Your task to perform on an android device: open app "Messenger Lite" Image 0: 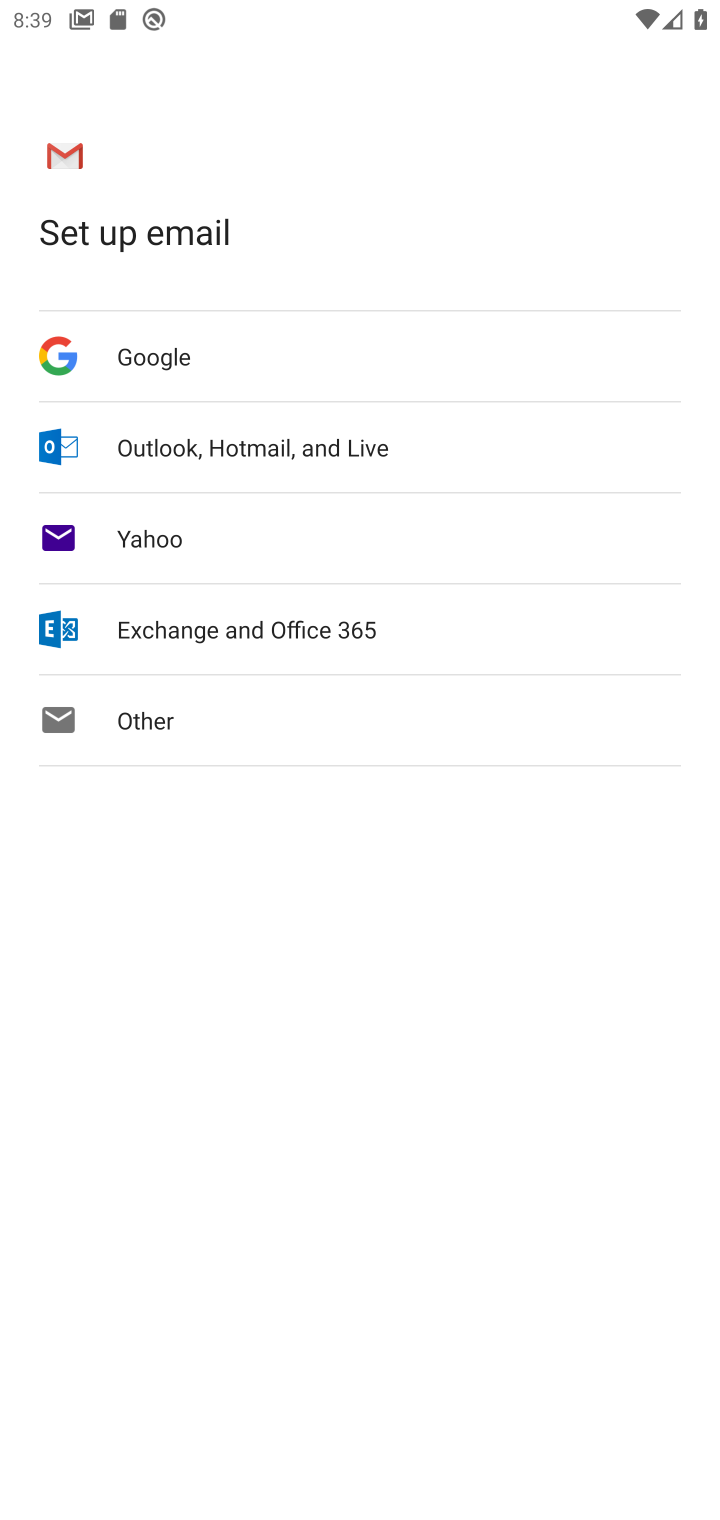
Step 0: press home button
Your task to perform on an android device: open app "Messenger Lite" Image 1: 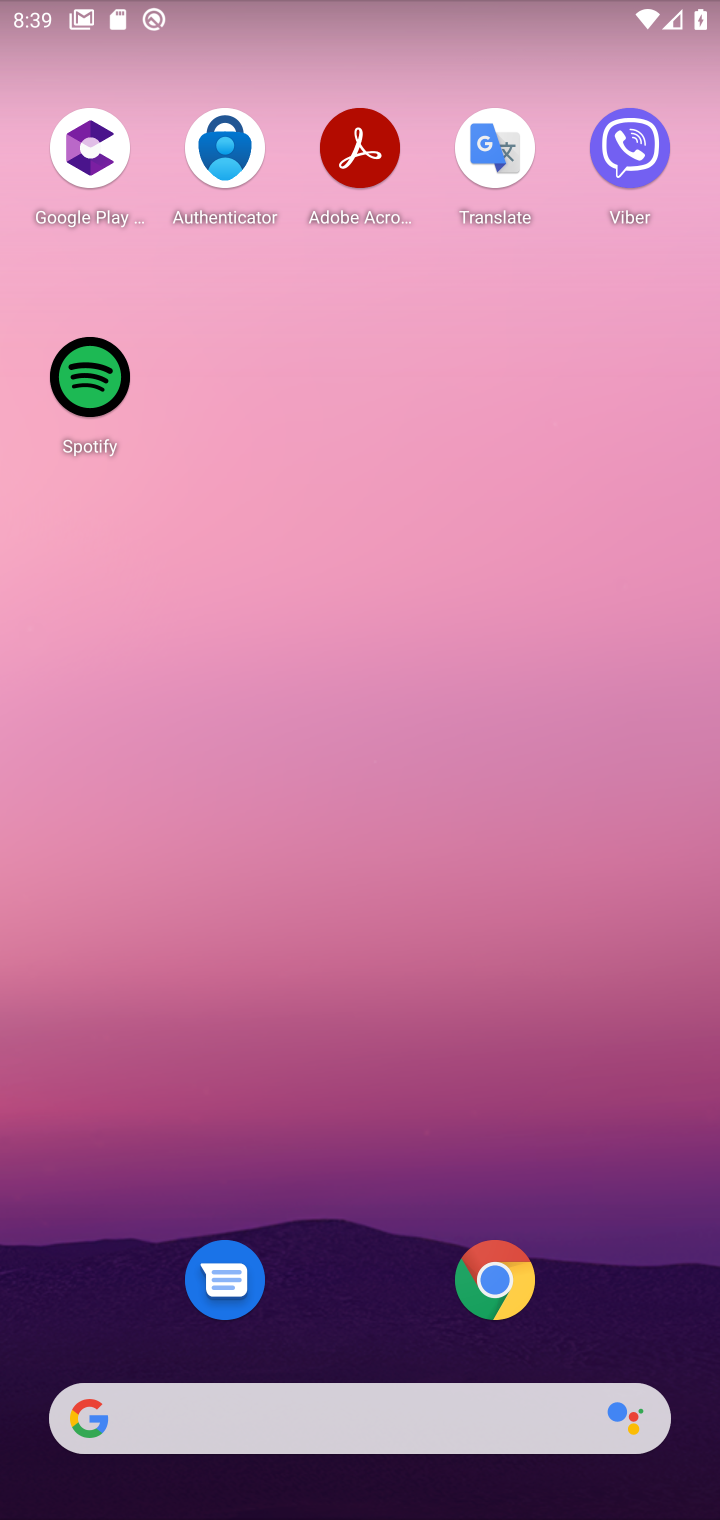
Step 1: drag from (445, 1324) to (457, 682)
Your task to perform on an android device: open app "Messenger Lite" Image 2: 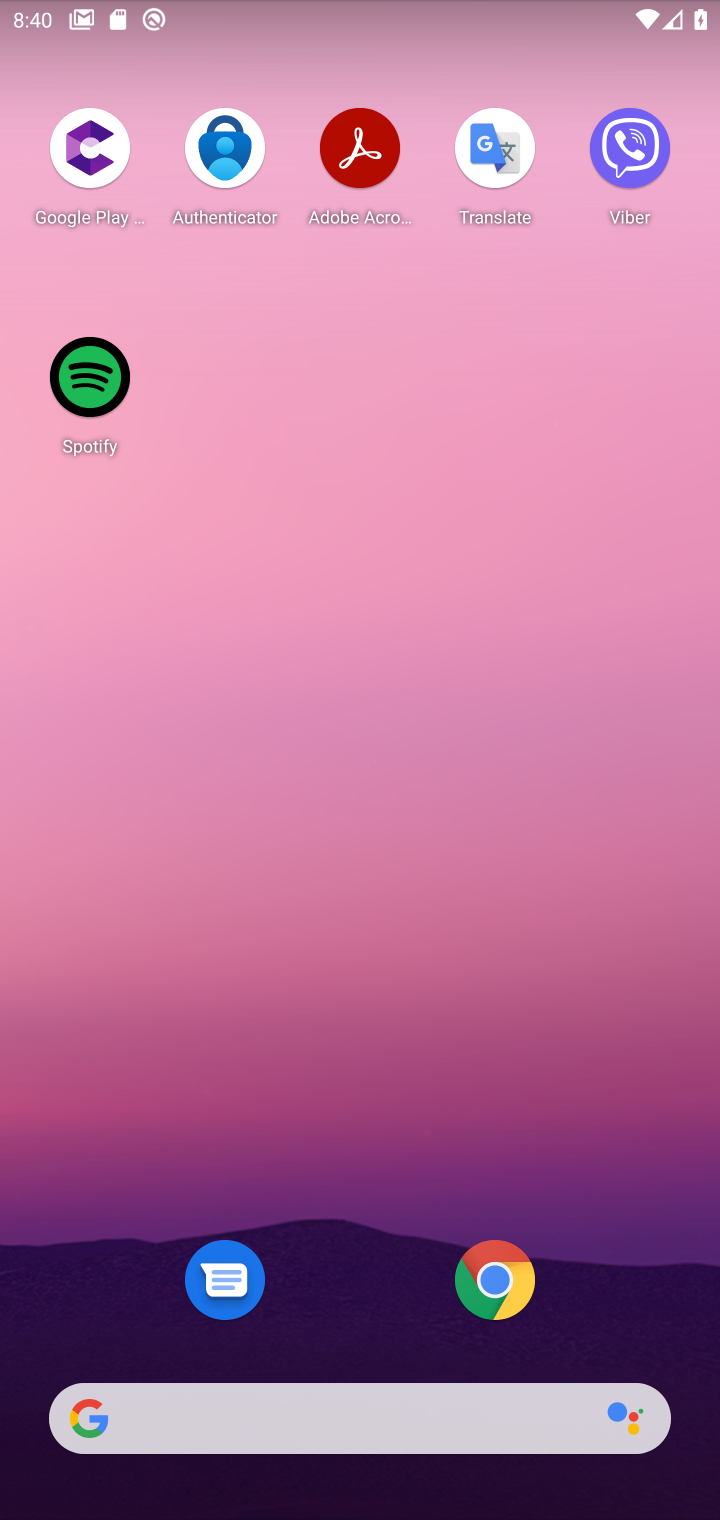
Step 2: drag from (60, 793) to (709, 748)
Your task to perform on an android device: open app "Messenger Lite" Image 3: 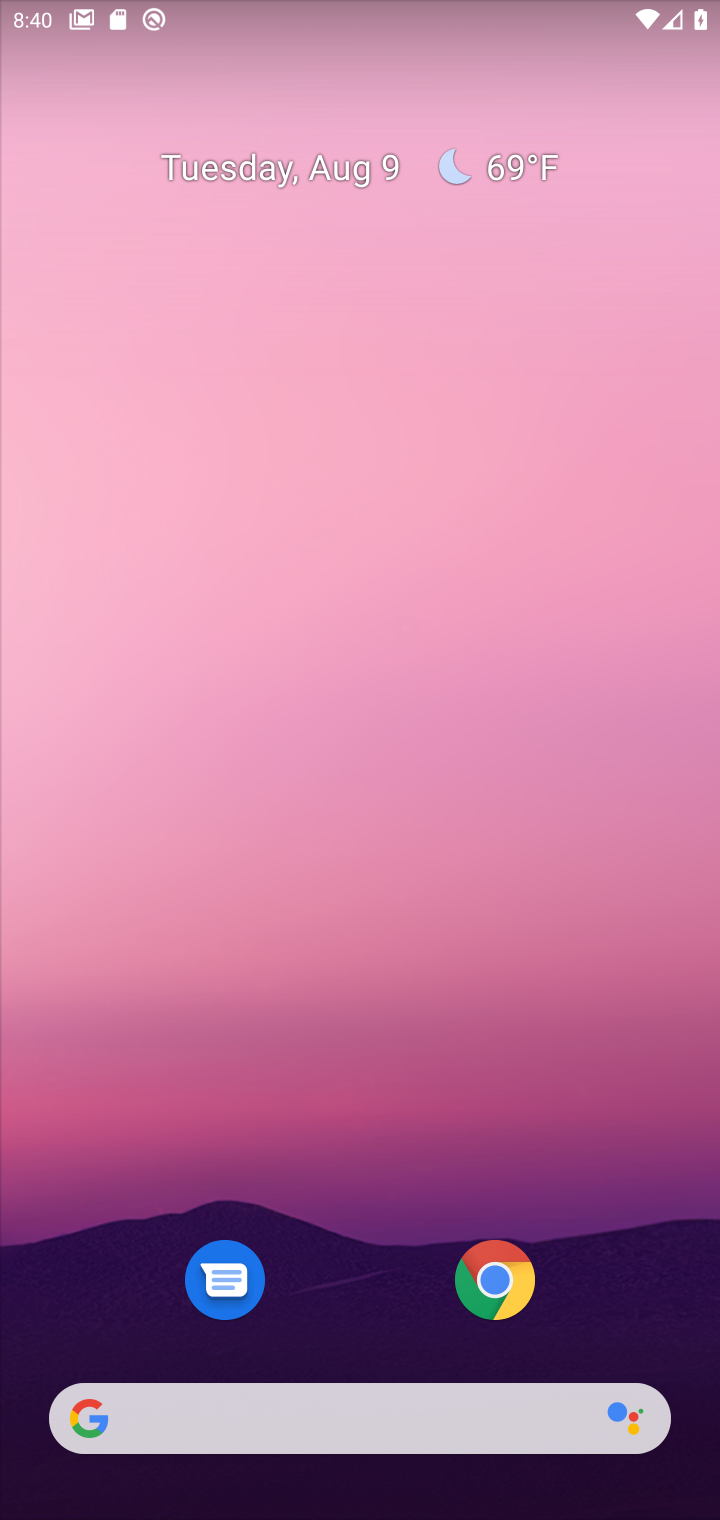
Step 3: click (513, 476)
Your task to perform on an android device: open app "Messenger Lite" Image 4: 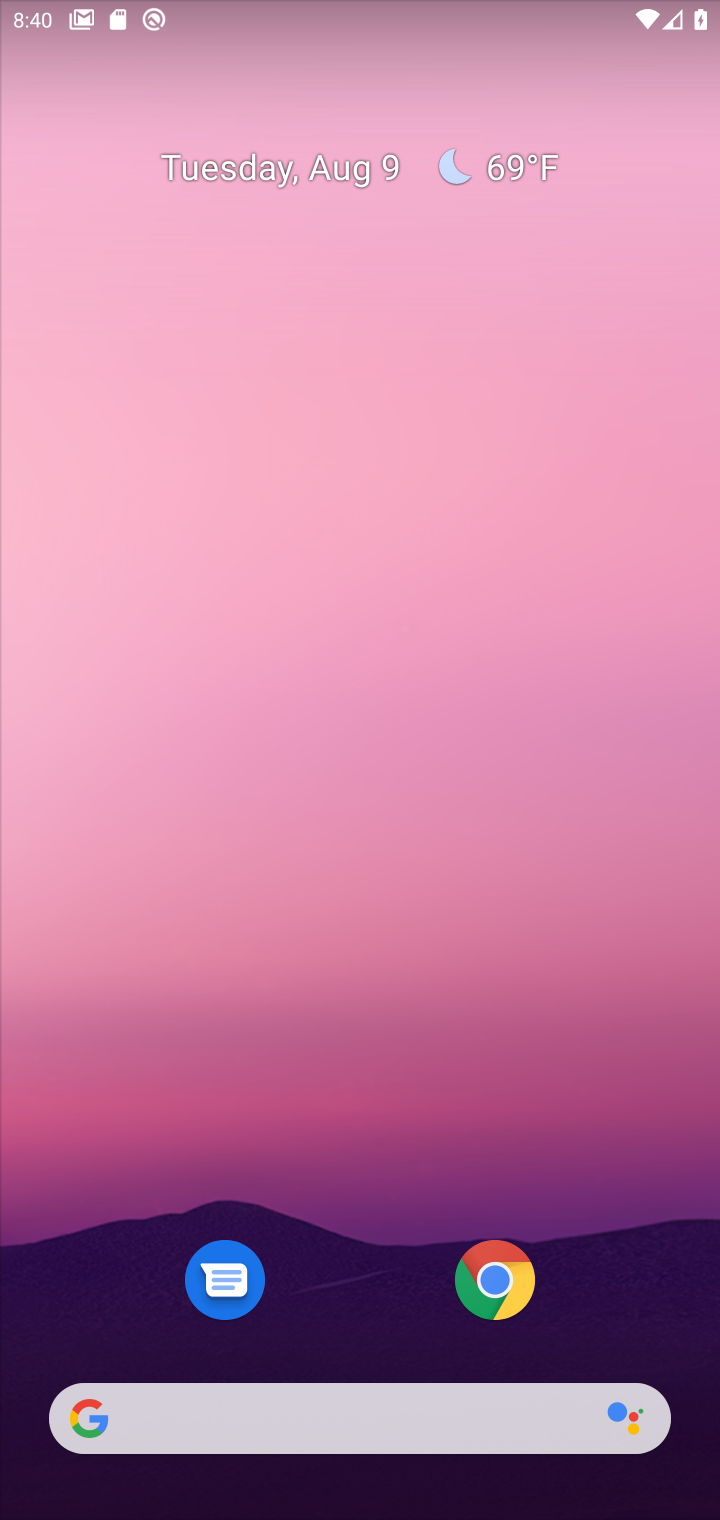
Step 4: drag from (443, 952) to (454, 739)
Your task to perform on an android device: open app "Messenger Lite" Image 5: 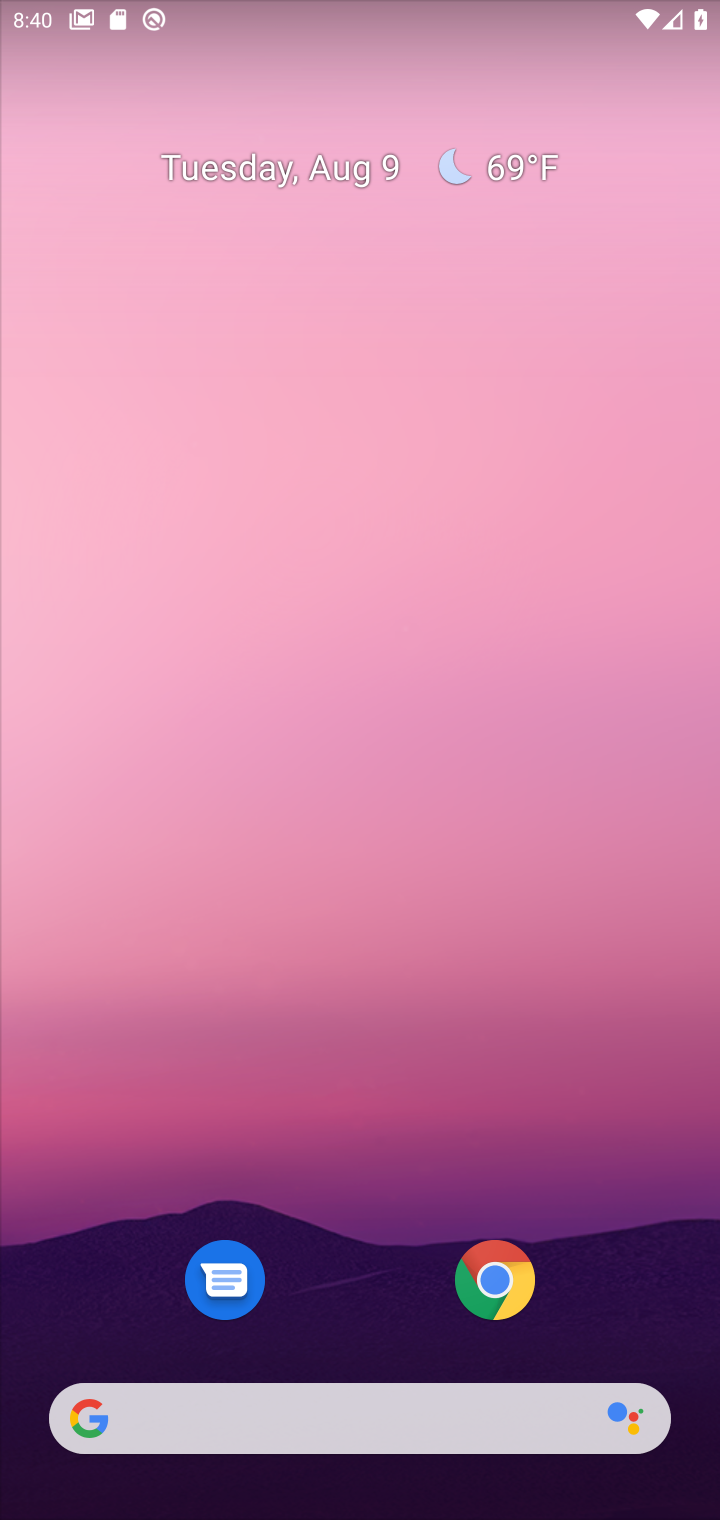
Step 5: drag from (352, 1296) to (416, 234)
Your task to perform on an android device: open app "Messenger Lite" Image 6: 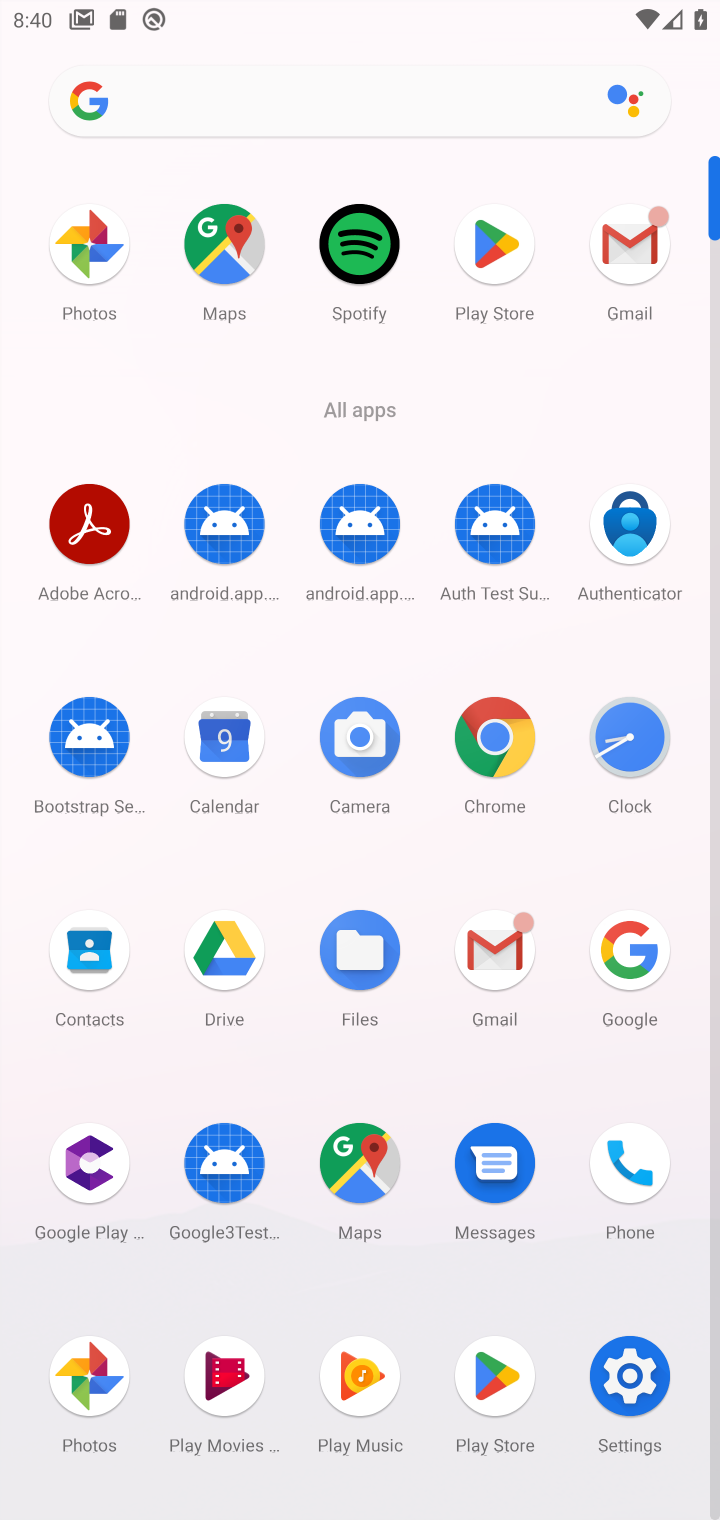
Step 6: click (496, 1390)
Your task to perform on an android device: open app "Messenger Lite" Image 7: 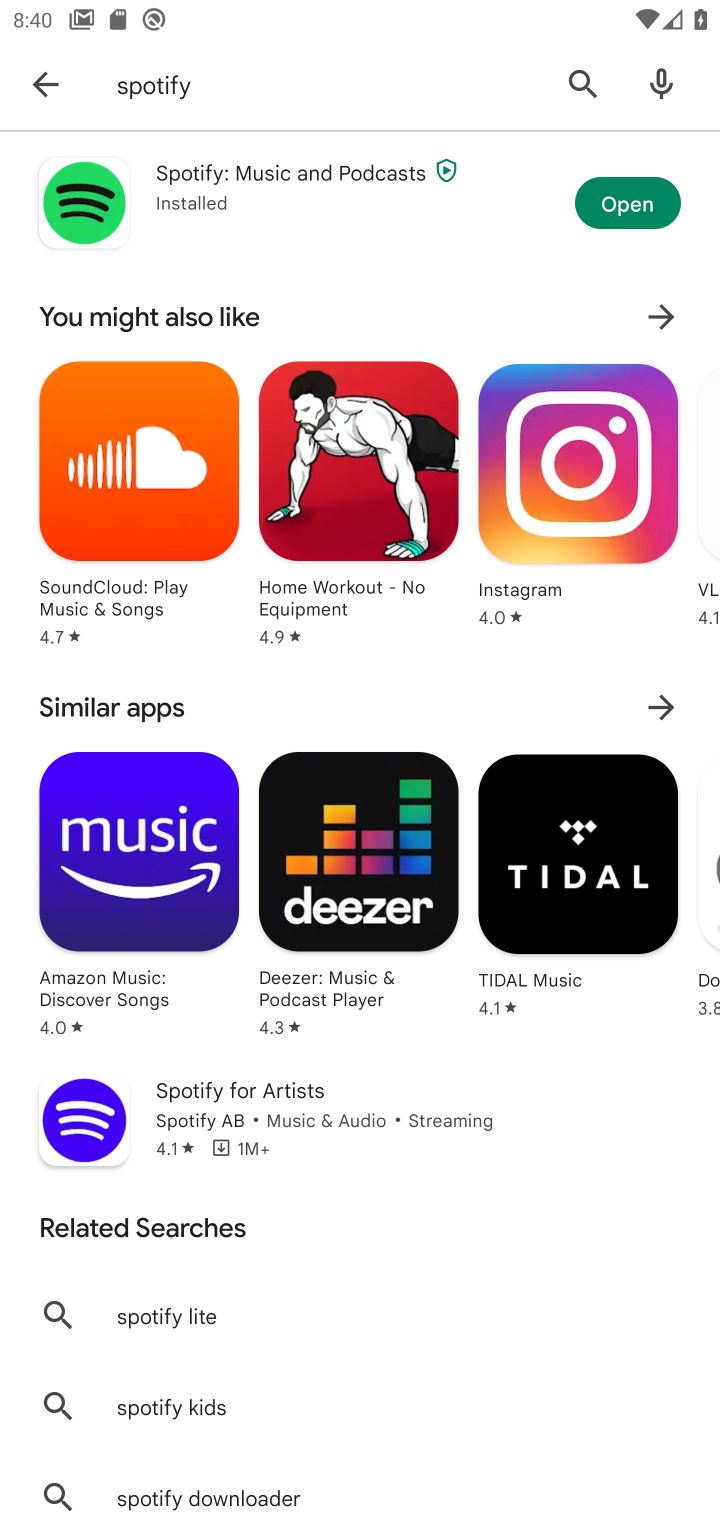
Step 7: click (576, 77)
Your task to perform on an android device: open app "Messenger Lite" Image 8: 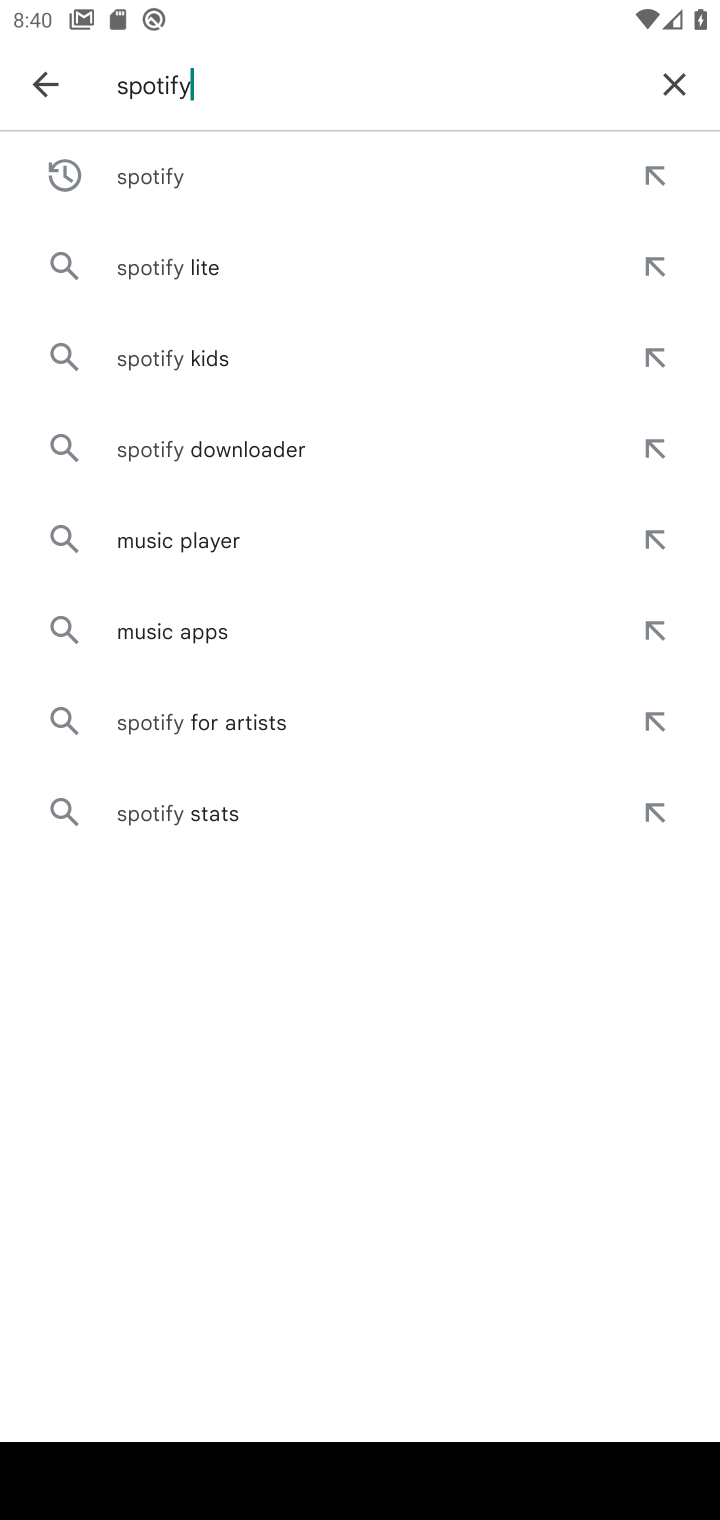
Step 8: click (677, 85)
Your task to perform on an android device: open app "Messenger Lite" Image 9: 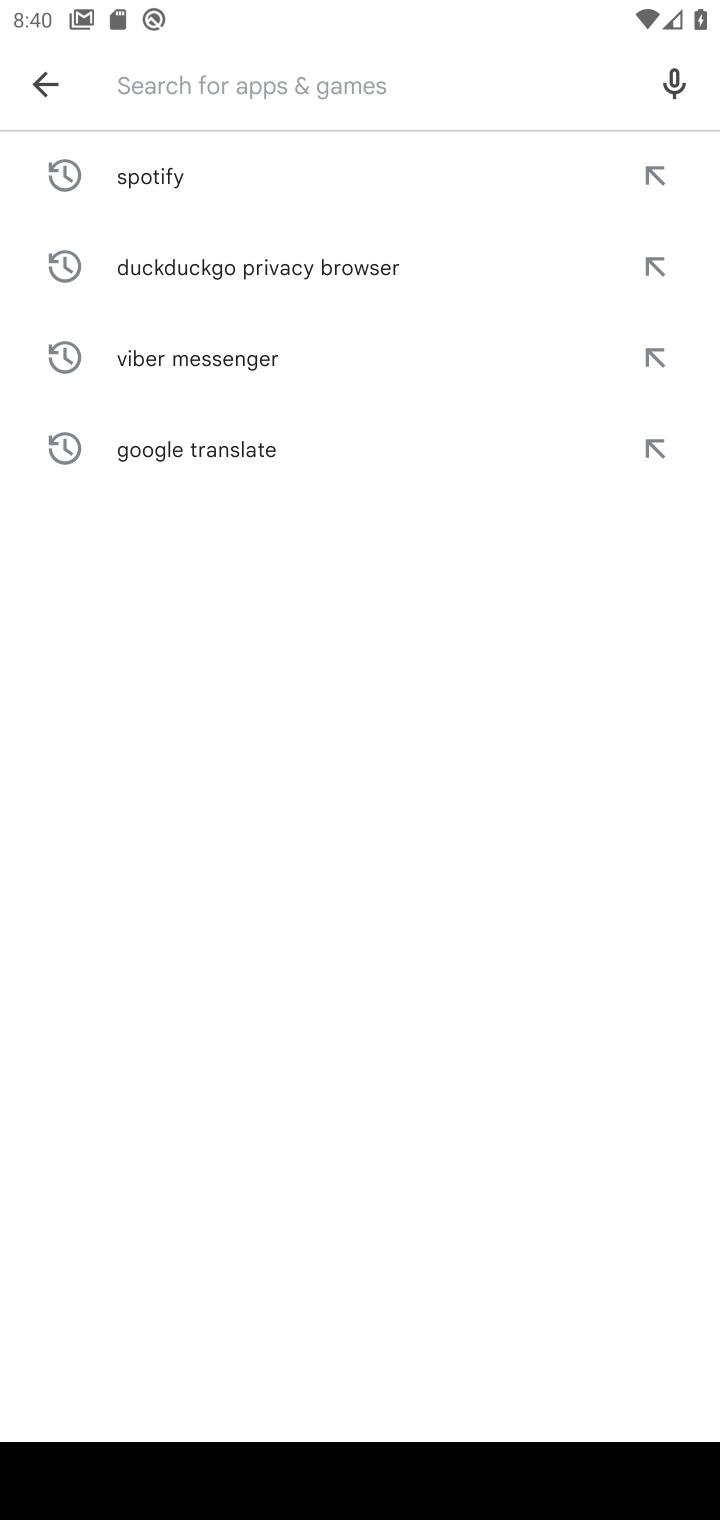
Step 9: type "messenger lite"
Your task to perform on an android device: open app "Messenger Lite" Image 10: 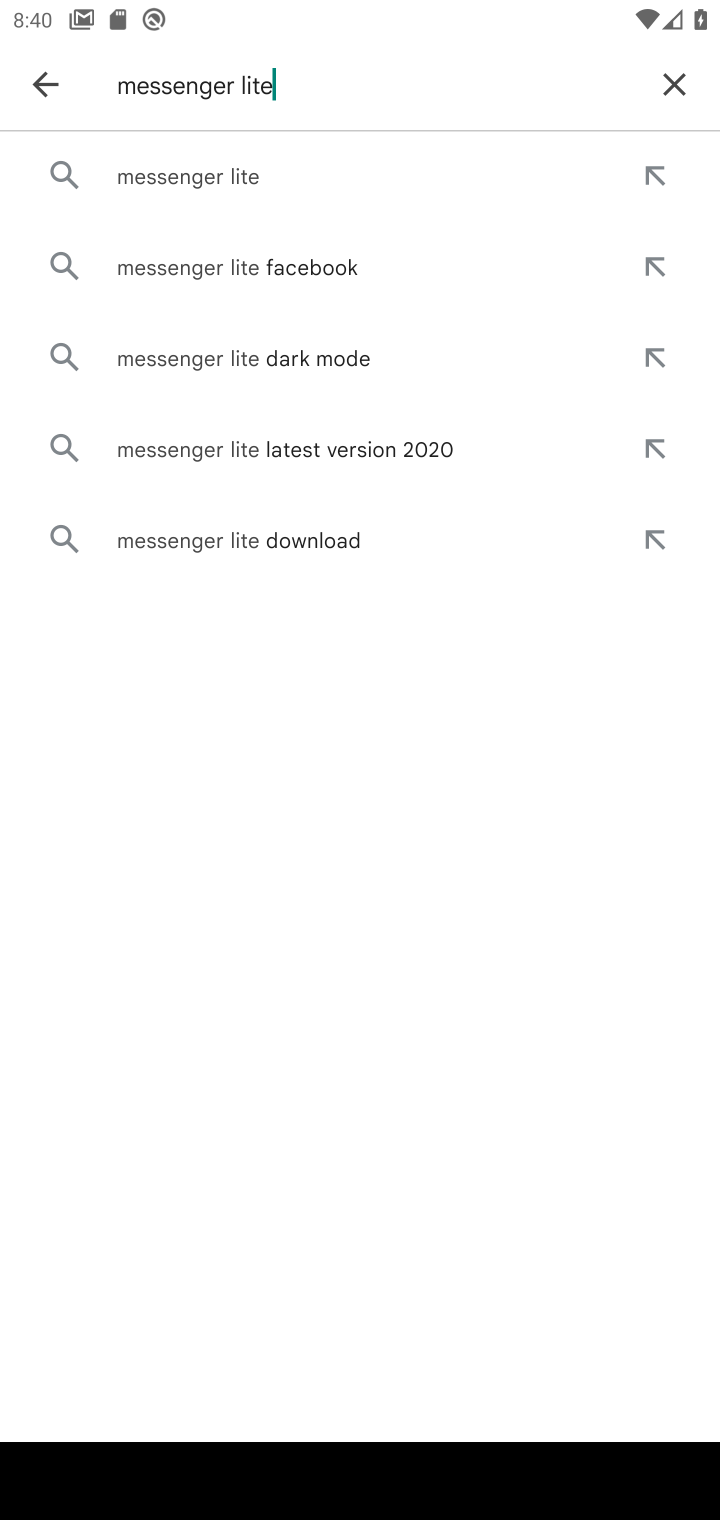
Step 10: click (211, 179)
Your task to perform on an android device: open app "Messenger Lite" Image 11: 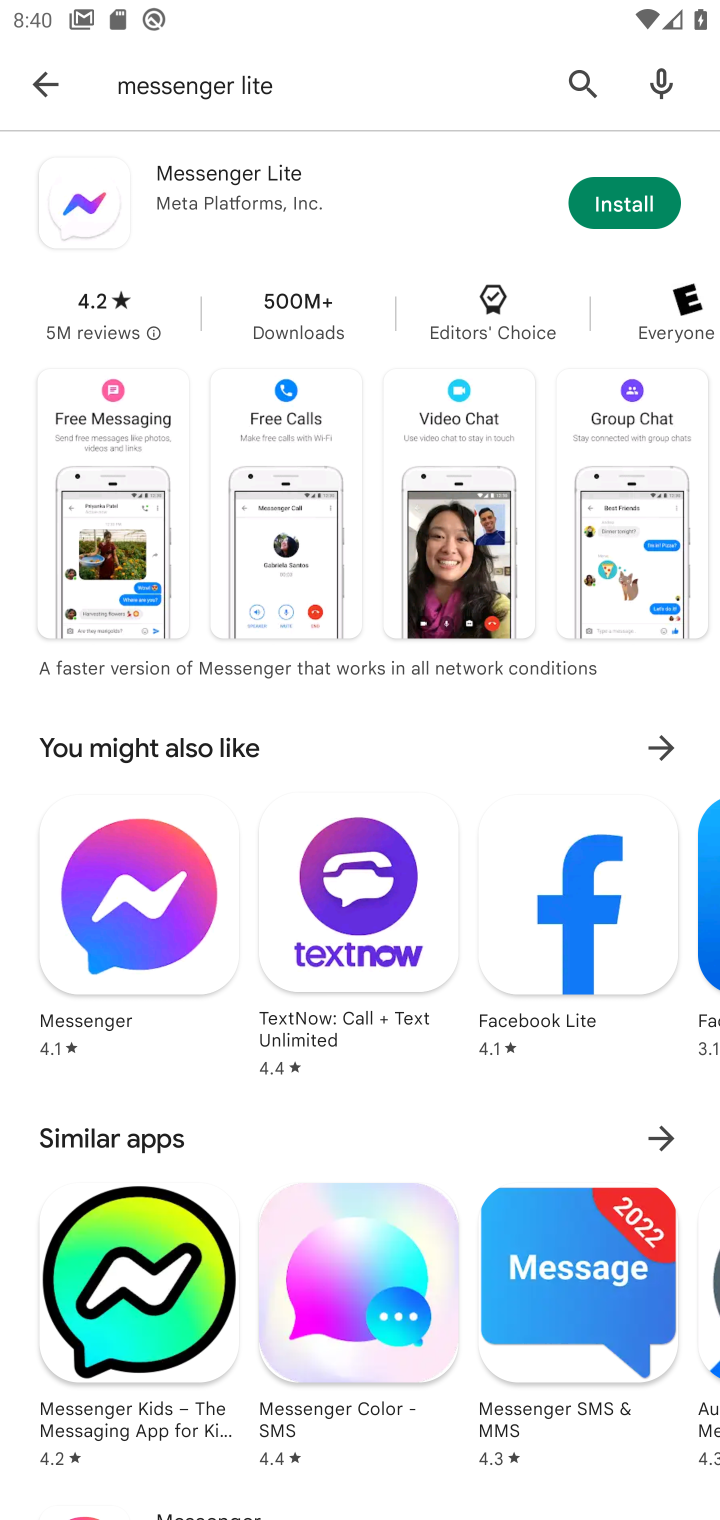
Step 11: click (639, 196)
Your task to perform on an android device: open app "Messenger Lite" Image 12: 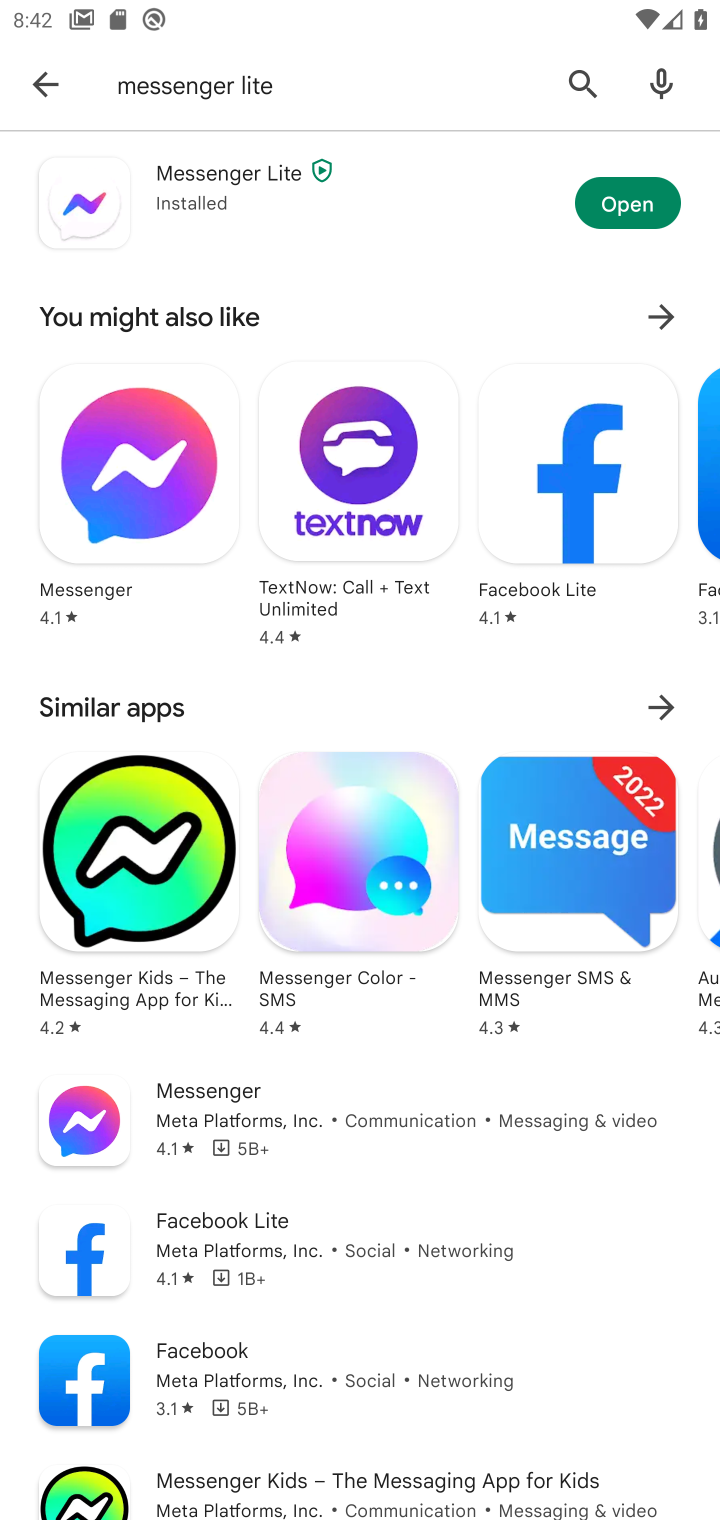
Step 12: click (618, 192)
Your task to perform on an android device: open app "Messenger Lite" Image 13: 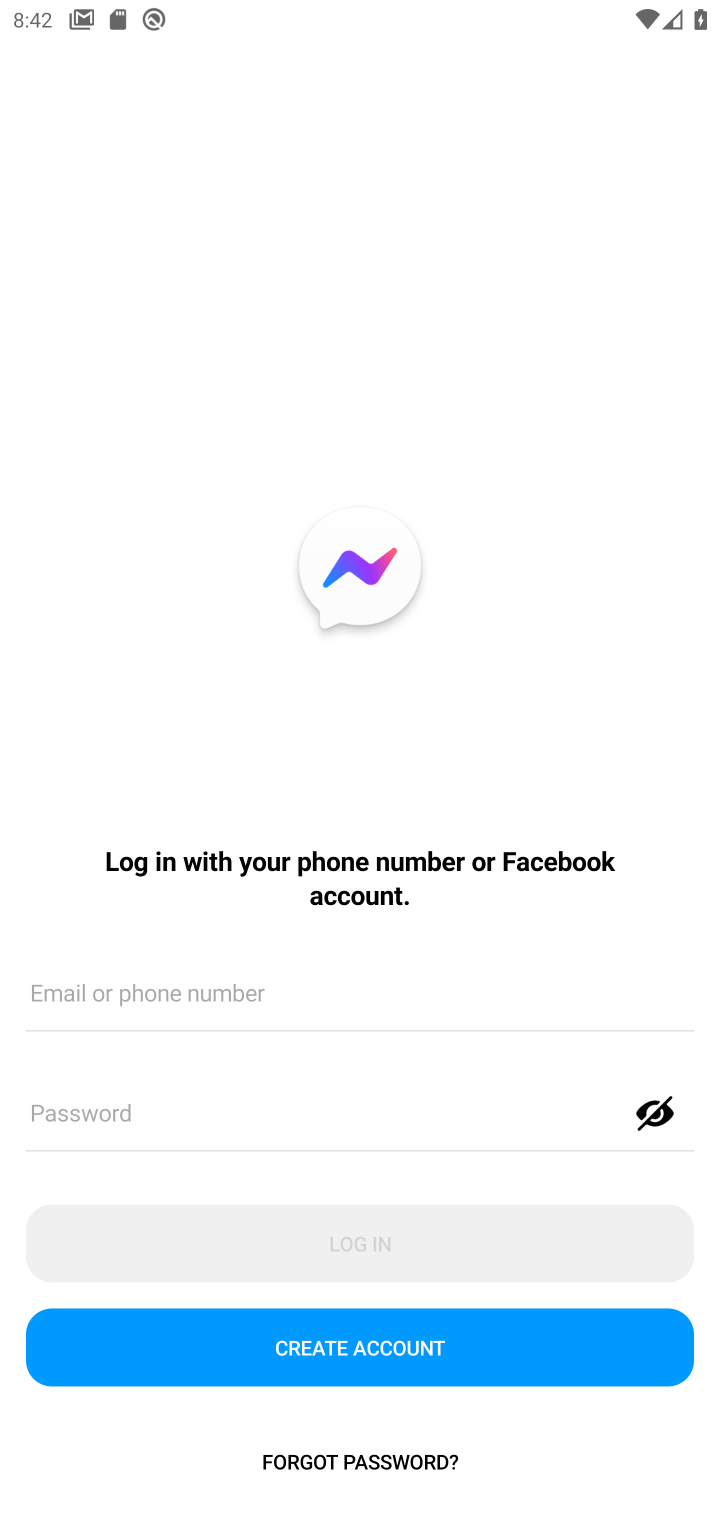
Step 13: task complete